Your task to perform on an android device: open app "Microsoft Excel" (install if not already installed) Image 0: 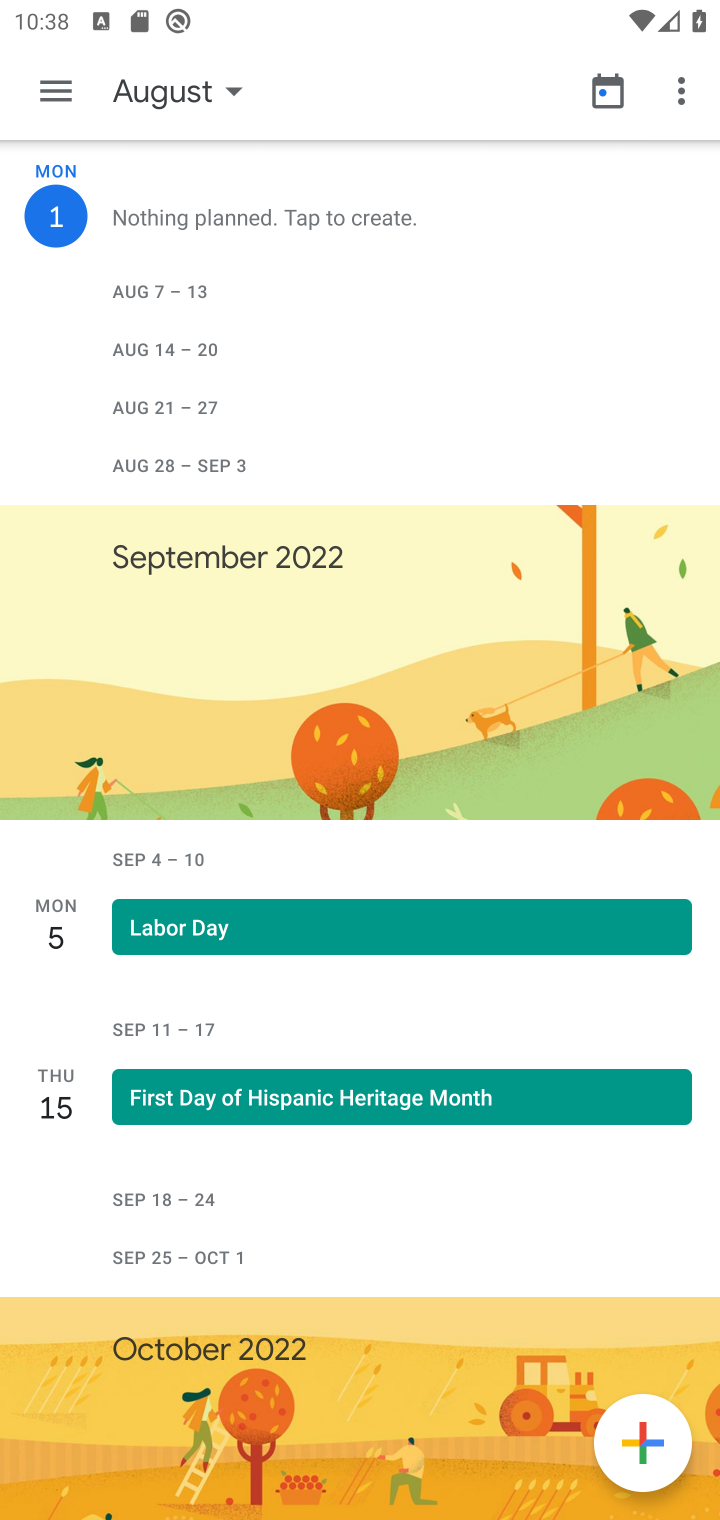
Step 0: press home button
Your task to perform on an android device: open app "Microsoft Excel" (install if not already installed) Image 1: 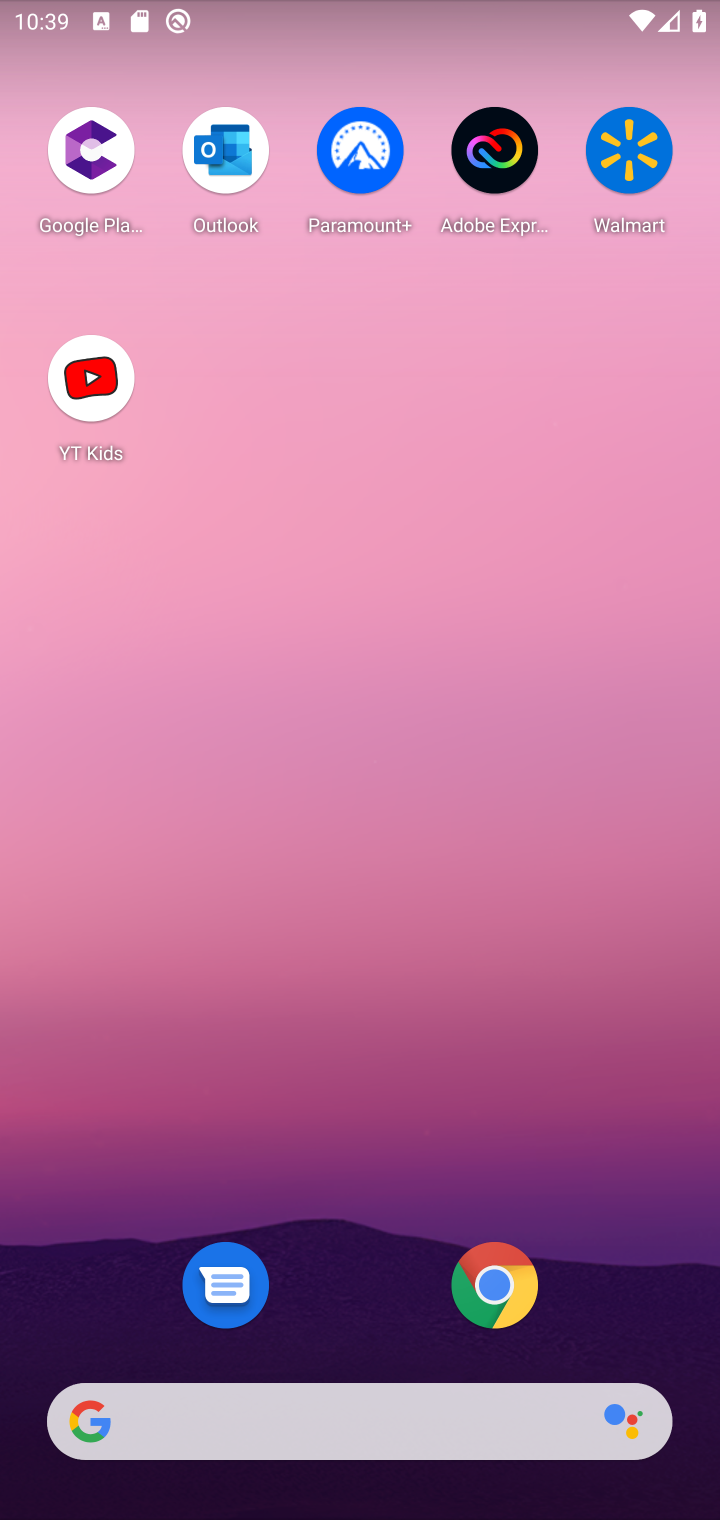
Step 1: drag from (353, 1383) to (289, 316)
Your task to perform on an android device: open app "Microsoft Excel" (install if not already installed) Image 2: 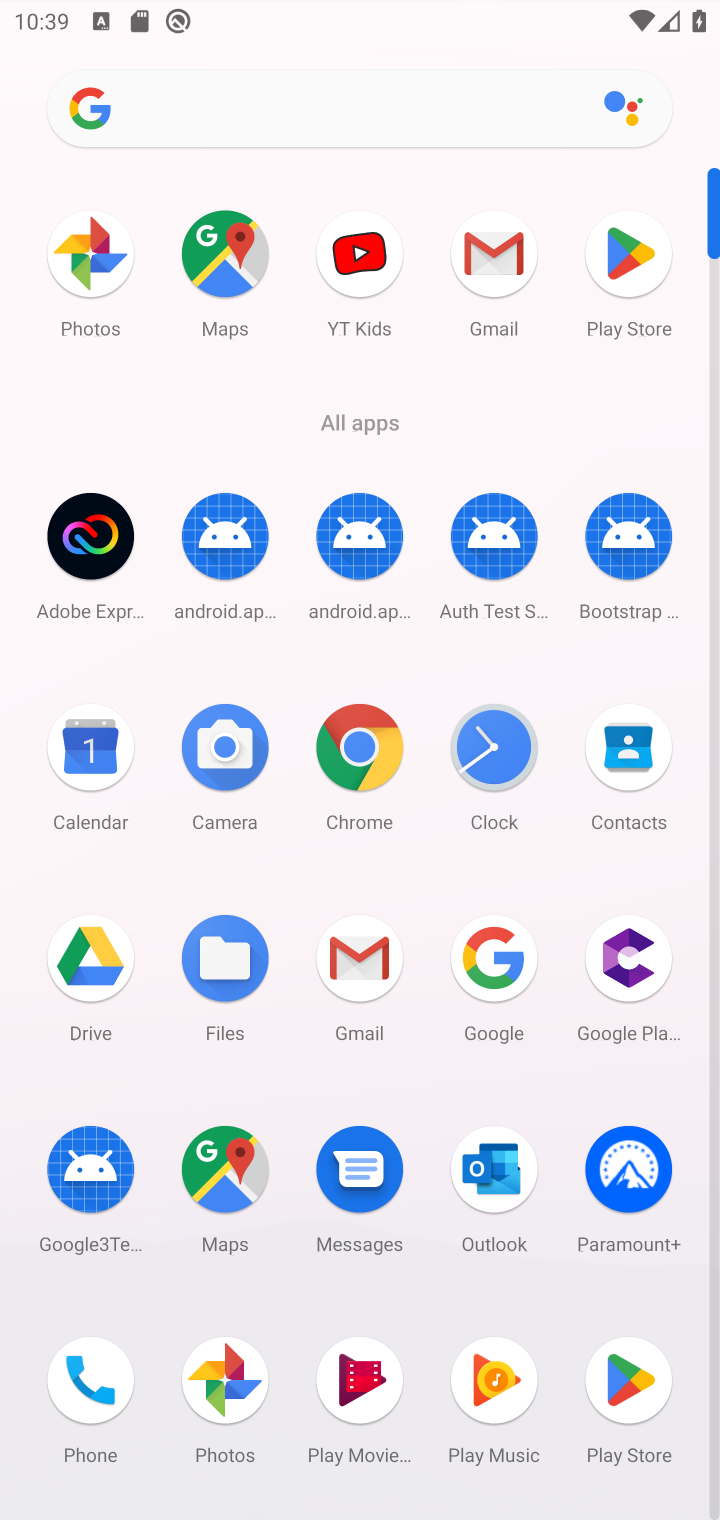
Step 2: click (620, 1388)
Your task to perform on an android device: open app "Microsoft Excel" (install if not already installed) Image 3: 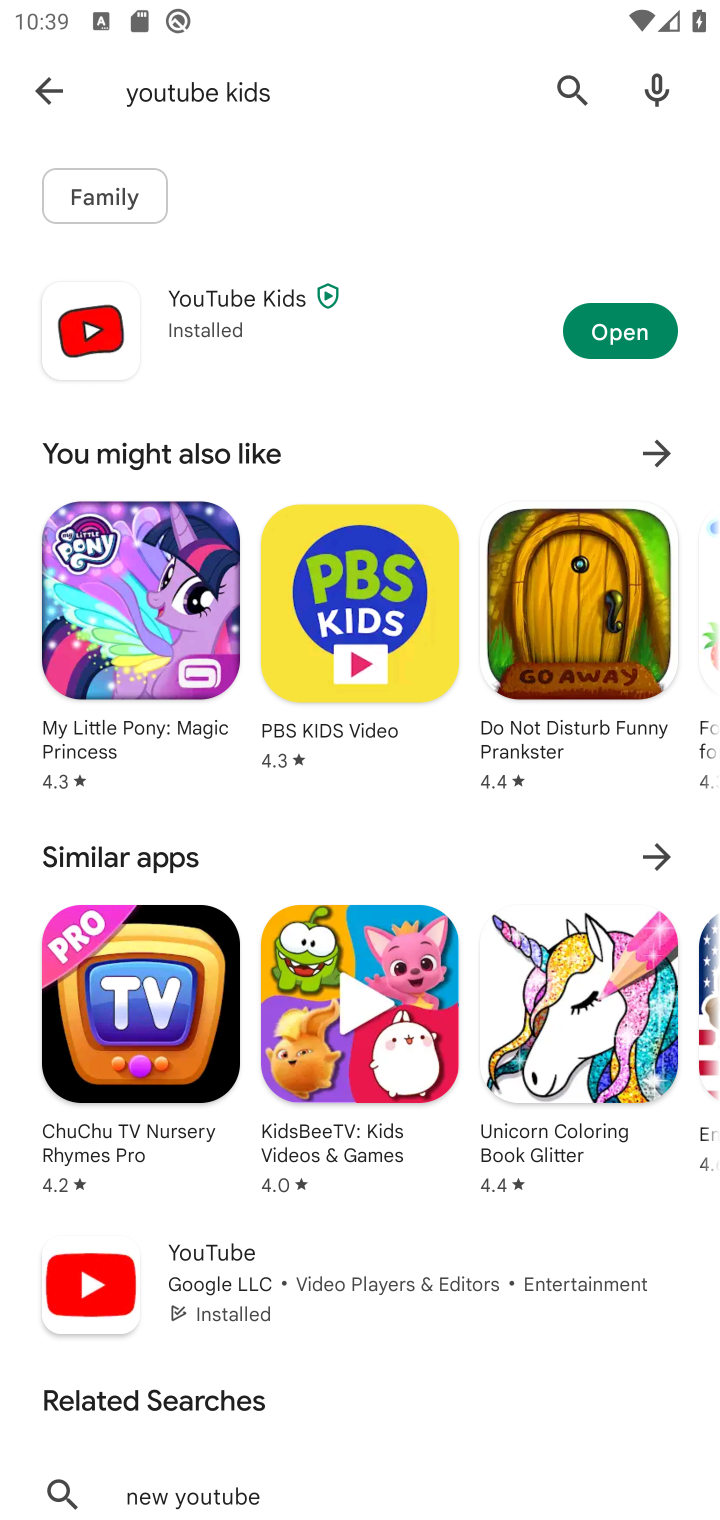
Step 3: click (566, 82)
Your task to perform on an android device: open app "Microsoft Excel" (install if not already installed) Image 4: 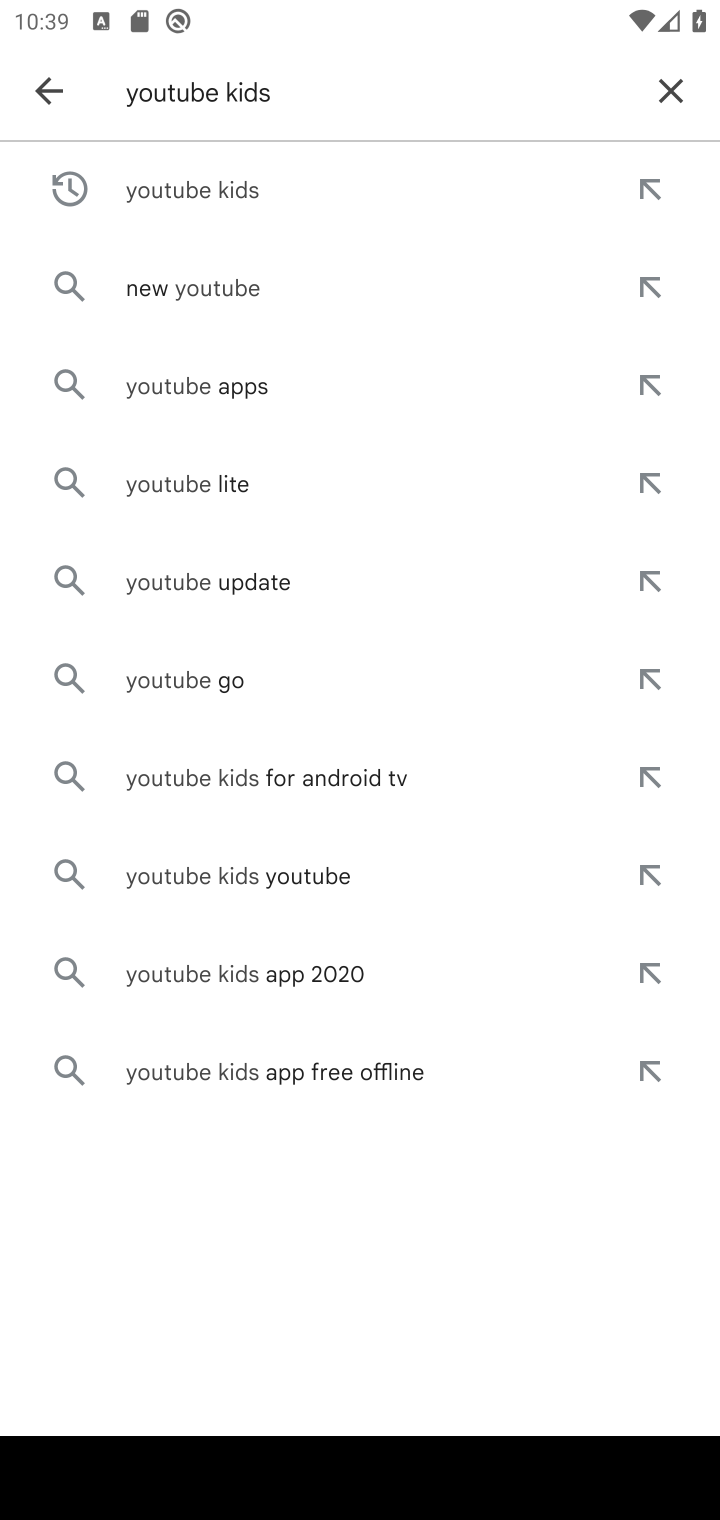
Step 4: click (683, 72)
Your task to perform on an android device: open app "Microsoft Excel" (install if not already installed) Image 5: 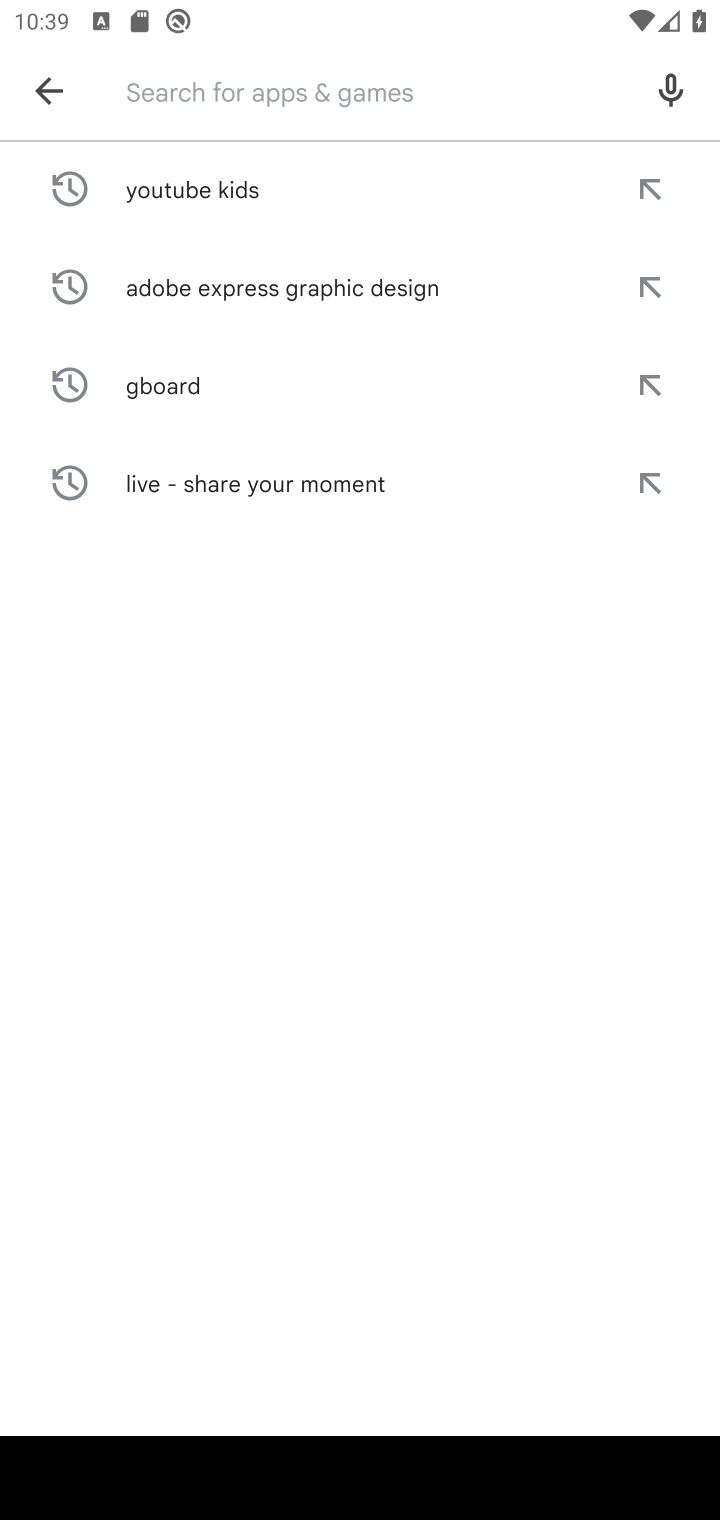
Step 5: type "Microsoft Excel"
Your task to perform on an android device: open app "Microsoft Excel" (install if not already installed) Image 6: 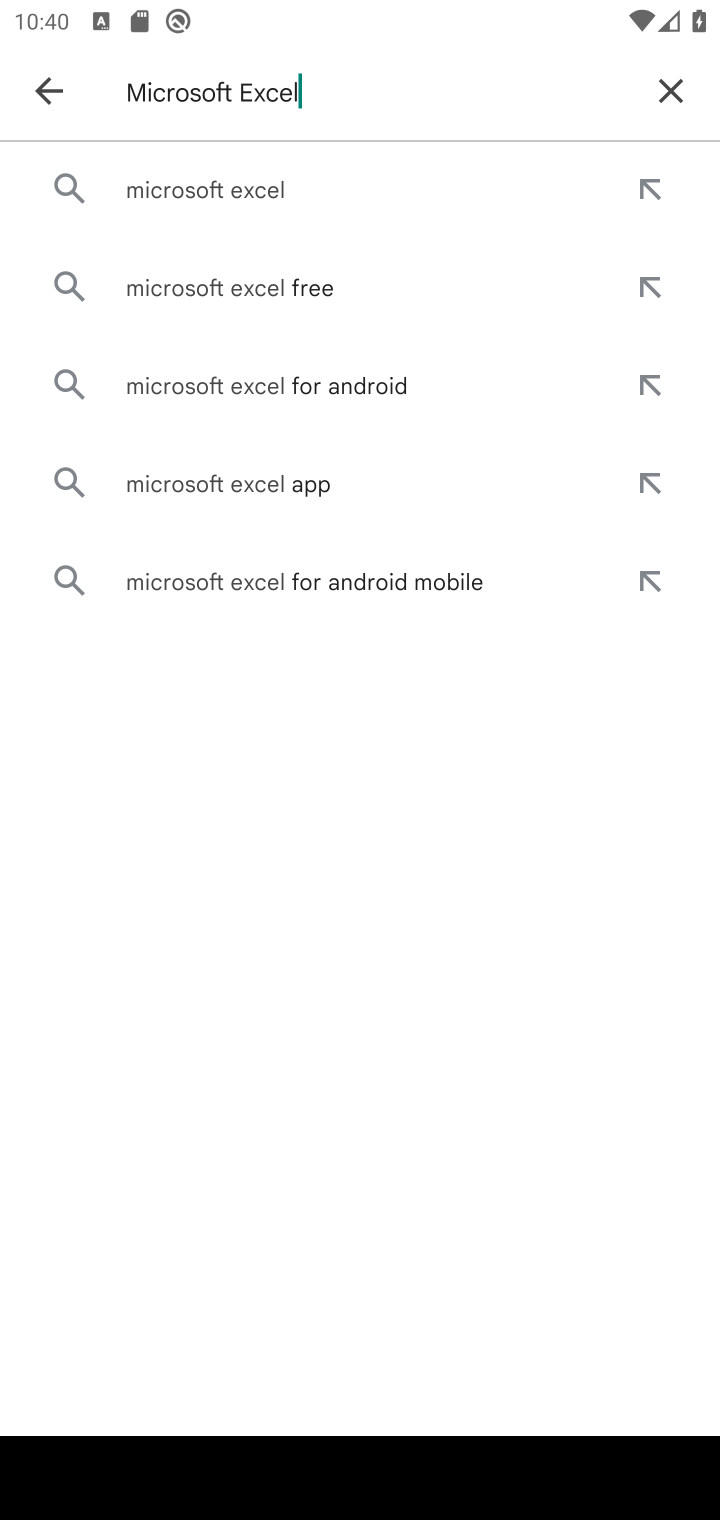
Step 6: click (209, 188)
Your task to perform on an android device: open app "Microsoft Excel" (install if not already installed) Image 7: 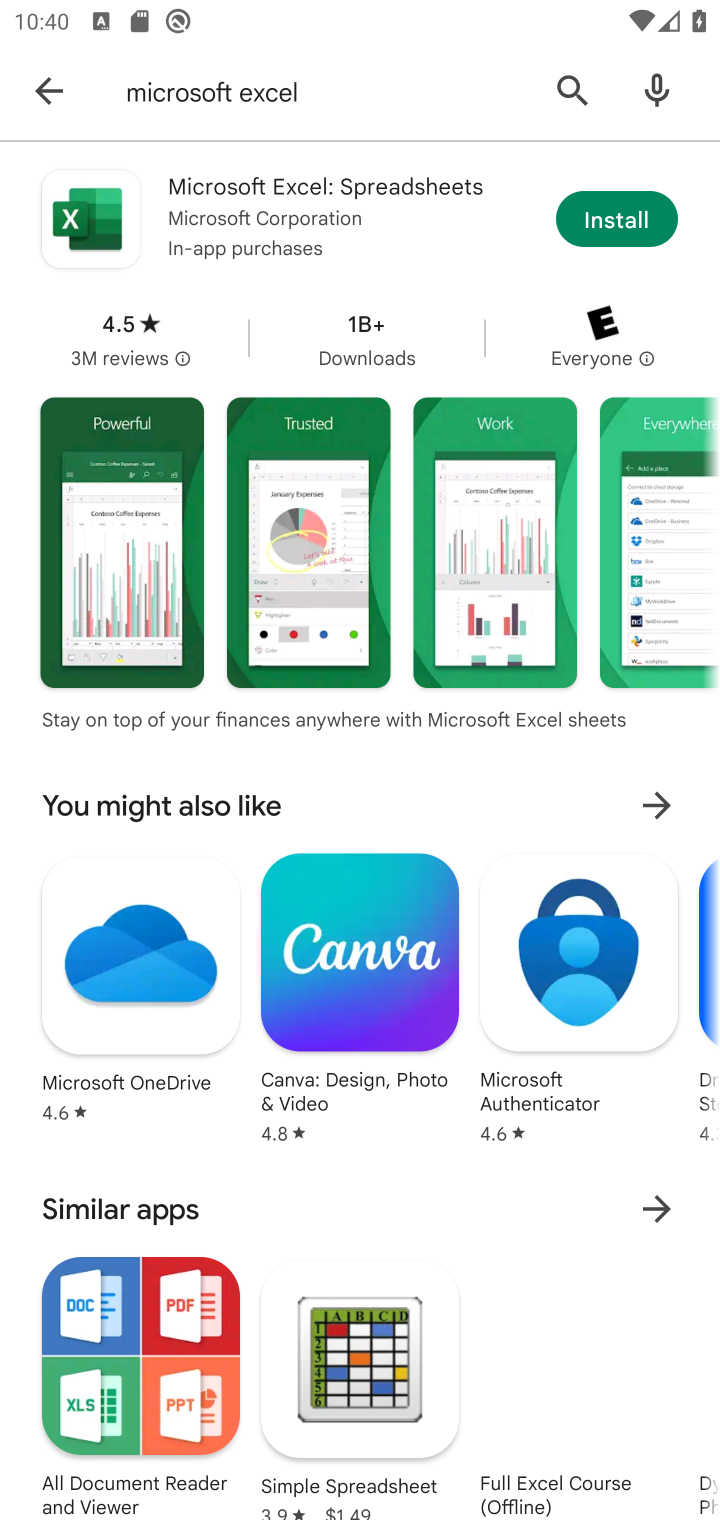
Step 7: click (588, 215)
Your task to perform on an android device: open app "Microsoft Excel" (install if not already installed) Image 8: 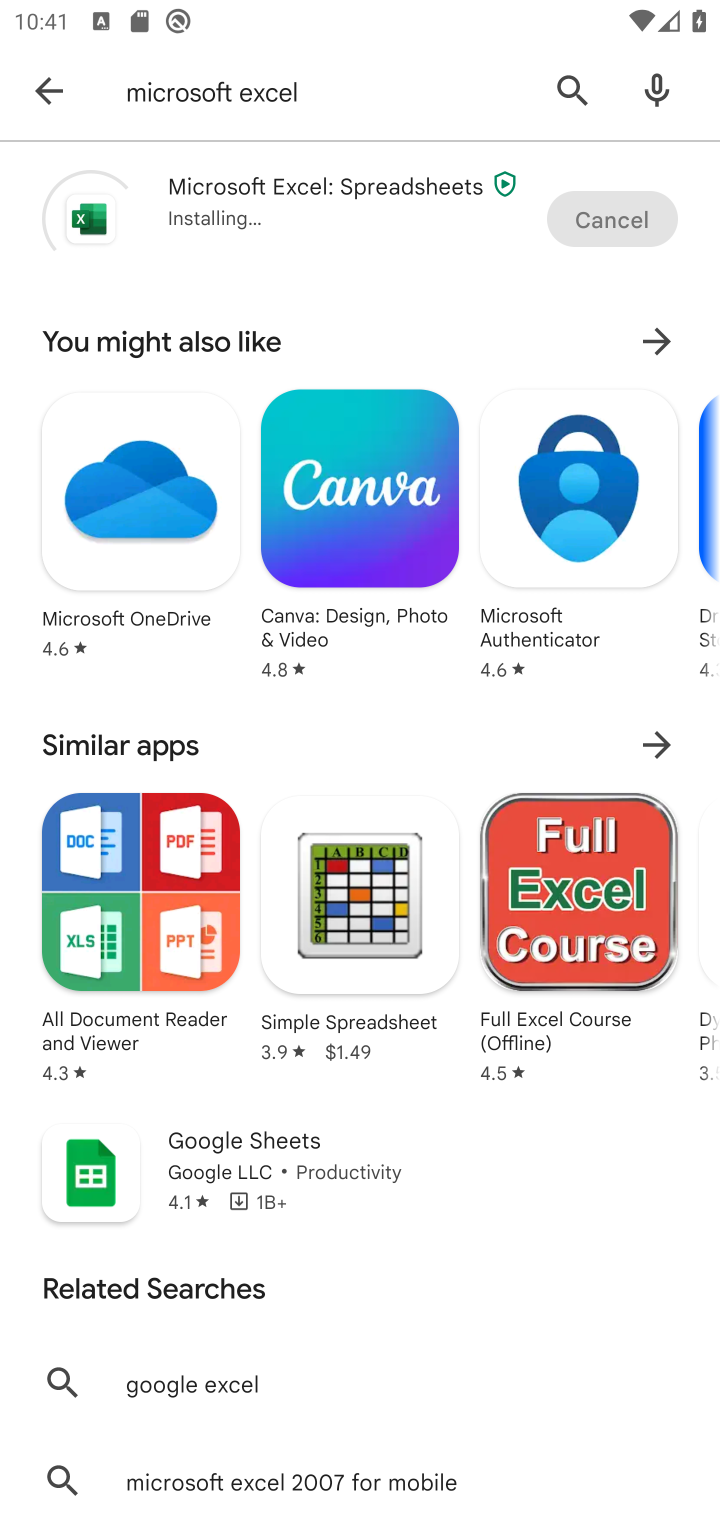
Step 8: task complete